Your task to perform on an android device: toggle airplane mode Image 0: 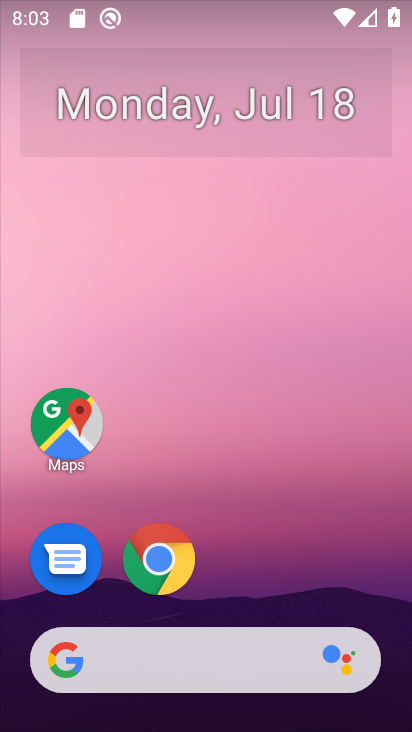
Step 0: drag from (374, 574) to (400, 104)
Your task to perform on an android device: toggle airplane mode Image 1: 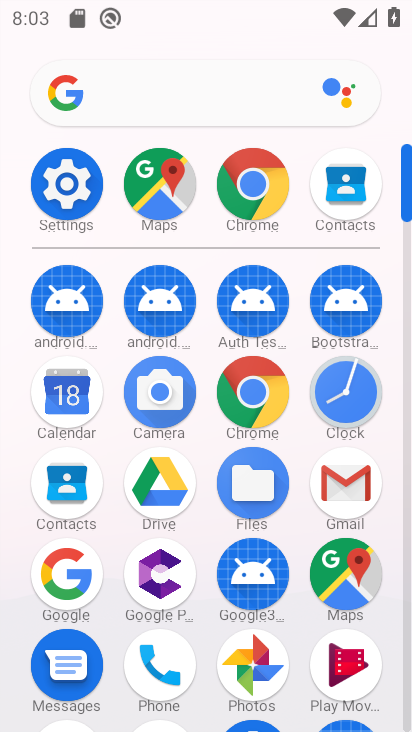
Step 1: click (66, 197)
Your task to perform on an android device: toggle airplane mode Image 2: 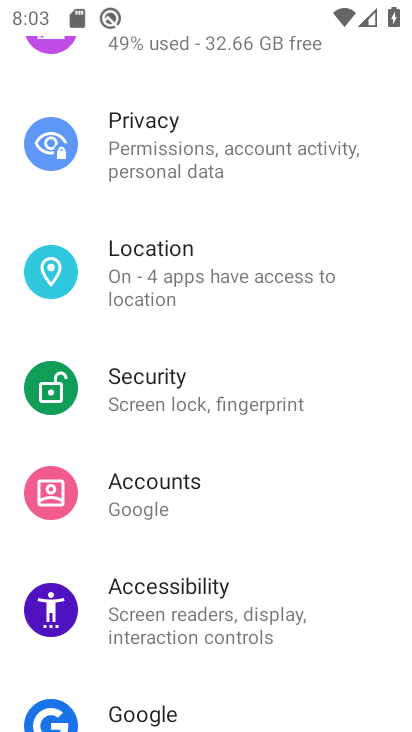
Step 2: drag from (347, 388) to (349, 440)
Your task to perform on an android device: toggle airplane mode Image 3: 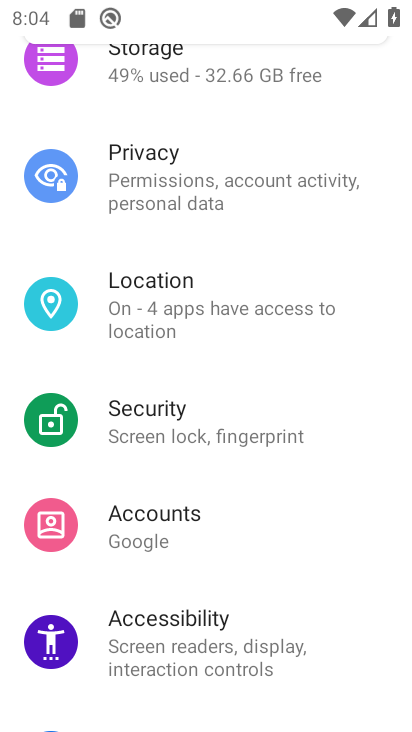
Step 3: drag from (355, 367) to (352, 429)
Your task to perform on an android device: toggle airplane mode Image 4: 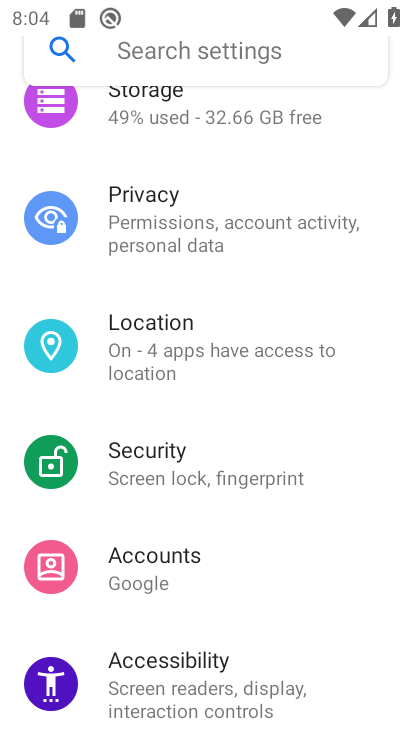
Step 4: drag from (368, 316) to (376, 389)
Your task to perform on an android device: toggle airplane mode Image 5: 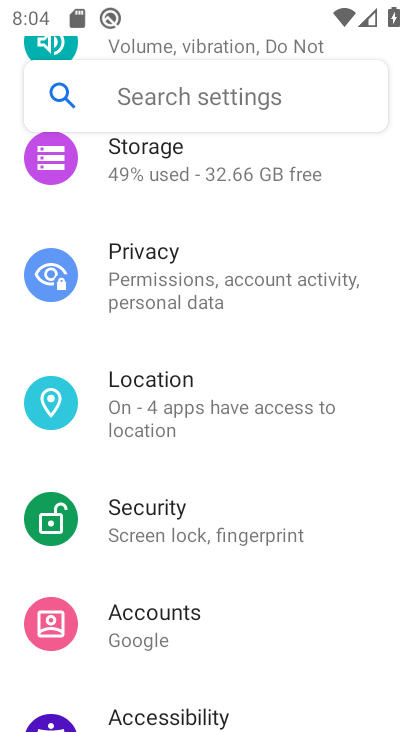
Step 5: drag from (381, 320) to (380, 400)
Your task to perform on an android device: toggle airplane mode Image 6: 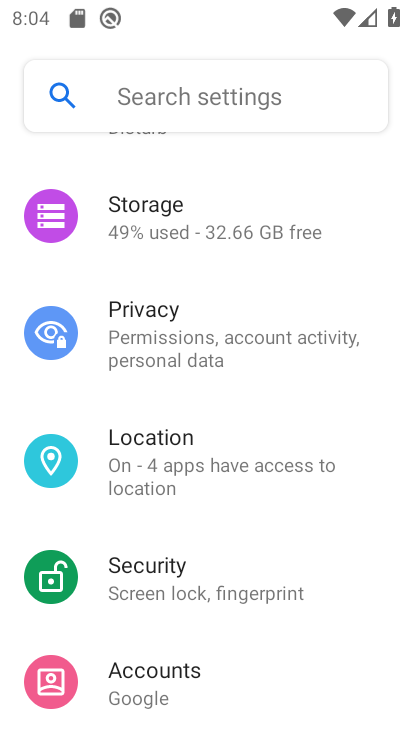
Step 6: drag from (383, 296) to (384, 385)
Your task to perform on an android device: toggle airplane mode Image 7: 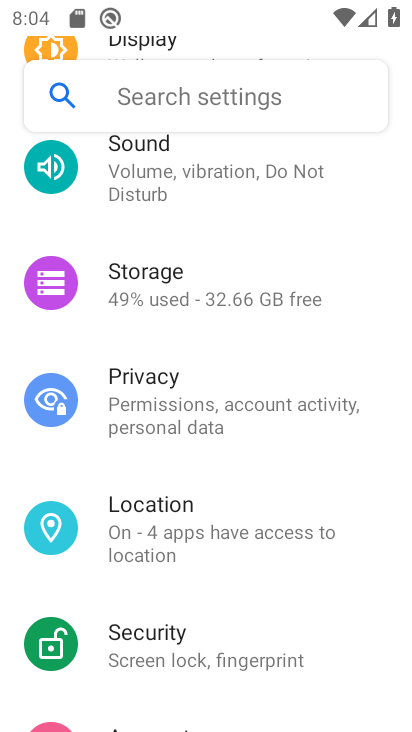
Step 7: drag from (389, 301) to (390, 376)
Your task to perform on an android device: toggle airplane mode Image 8: 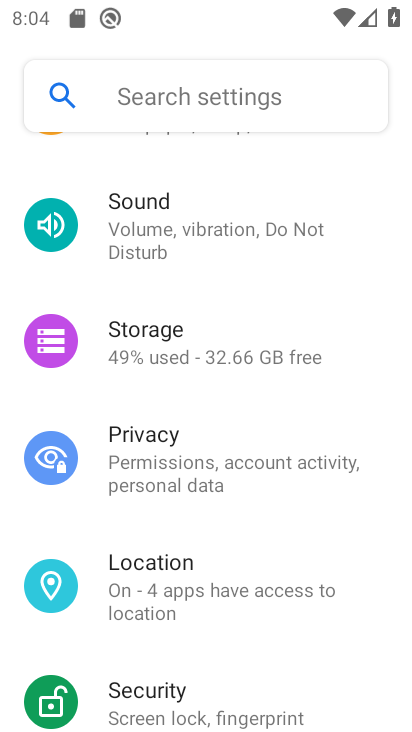
Step 8: drag from (384, 297) to (383, 384)
Your task to perform on an android device: toggle airplane mode Image 9: 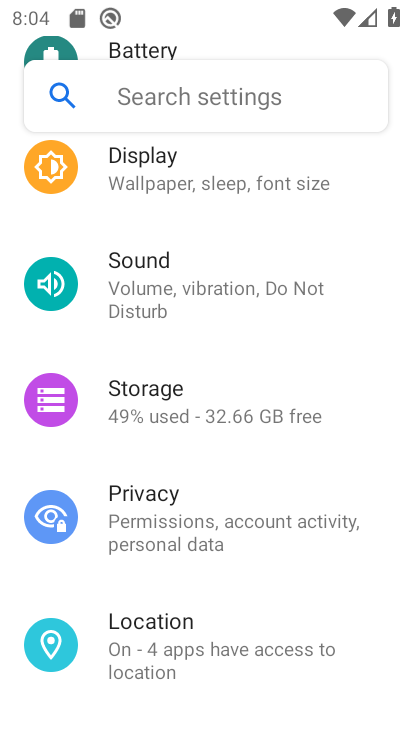
Step 9: drag from (373, 289) to (371, 371)
Your task to perform on an android device: toggle airplane mode Image 10: 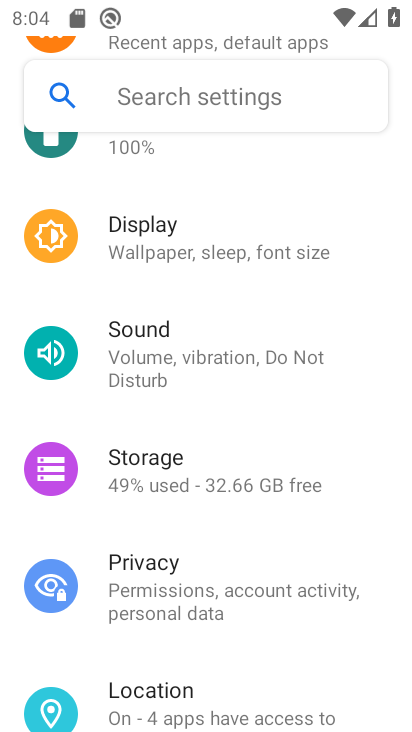
Step 10: drag from (375, 283) to (370, 367)
Your task to perform on an android device: toggle airplane mode Image 11: 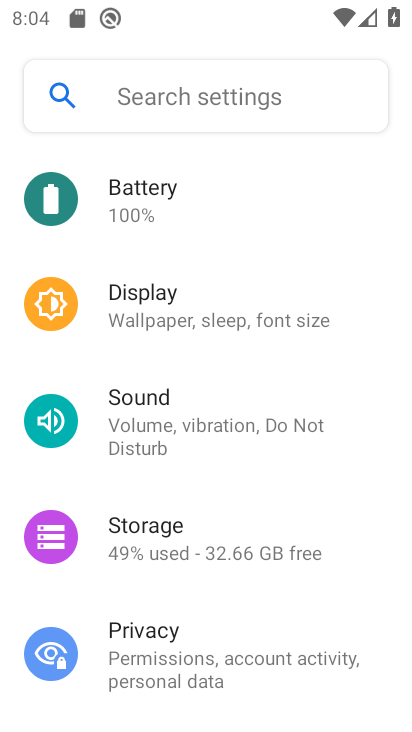
Step 11: drag from (370, 264) to (374, 344)
Your task to perform on an android device: toggle airplane mode Image 12: 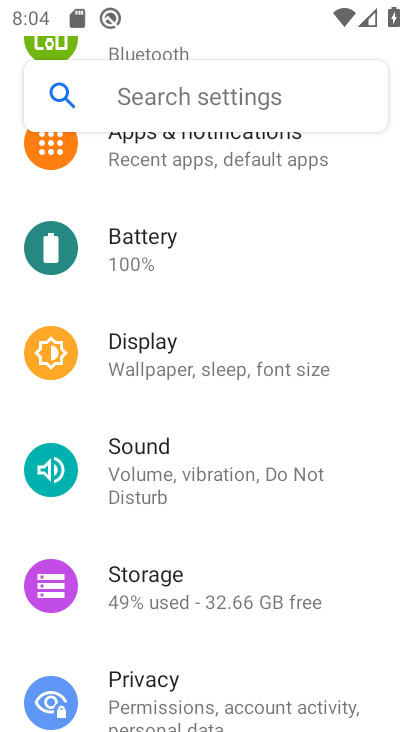
Step 12: drag from (372, 266) to (373, 338)
Your task to perform on an android device: toggle airplane mode Image 13: 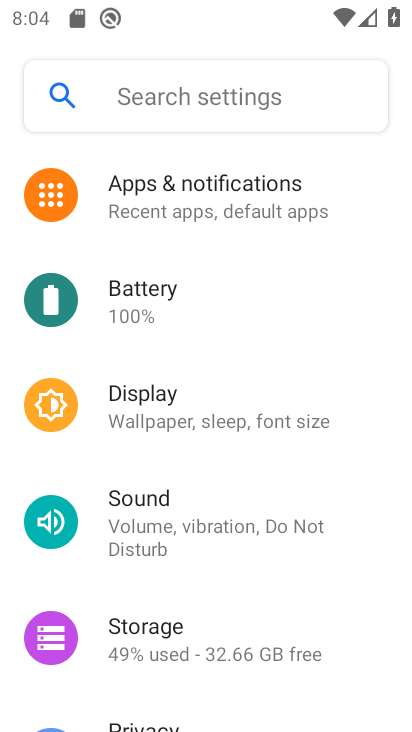
Step 13: drag from (369, 251) to (369, 341)
Your task to perform on an android device: toggle airplane mode Image 14: 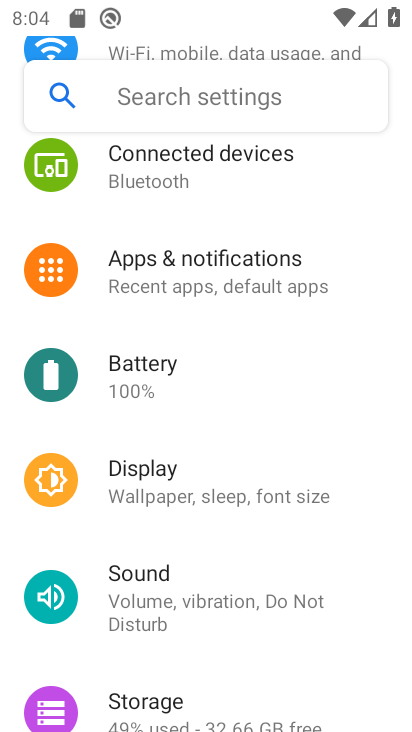
Step 14: drag from (367, 260) to (365, 358)
Your task to perform on an android device: toggle airplane mode Image 15: 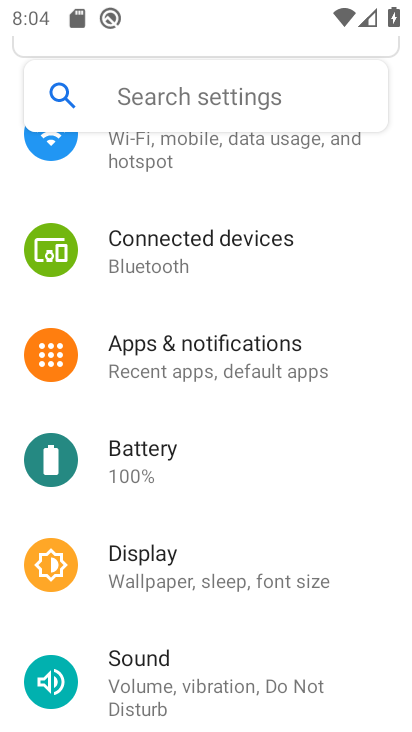
Step 15: drag from (364, 274) to (366, 360)
Your task to perform on an android device: toggle airplane mode Image 16: 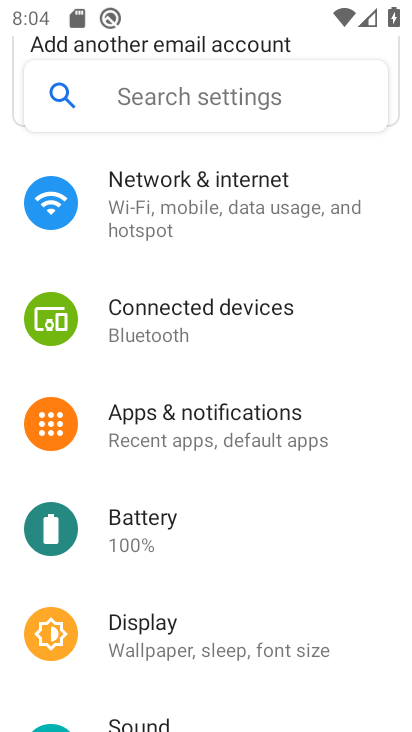
Step 16: drag from (362, 271) to (361, 370)
Your task to perform on an android device: toggle airplane mode Image 17: 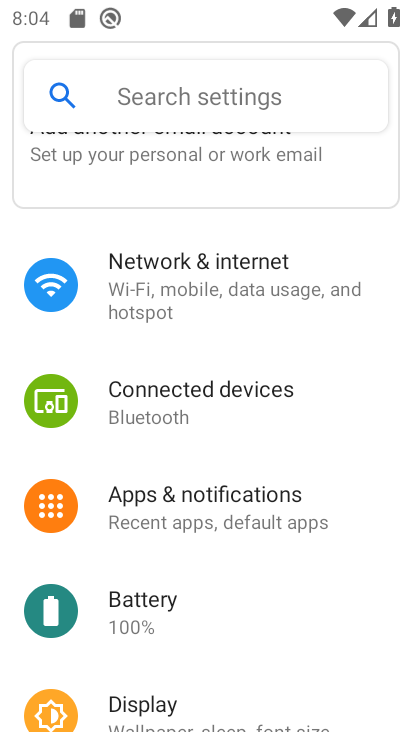
Step 17: click (280, 293)
Your task to perform on an android device: toggle airplane mode Image 18: 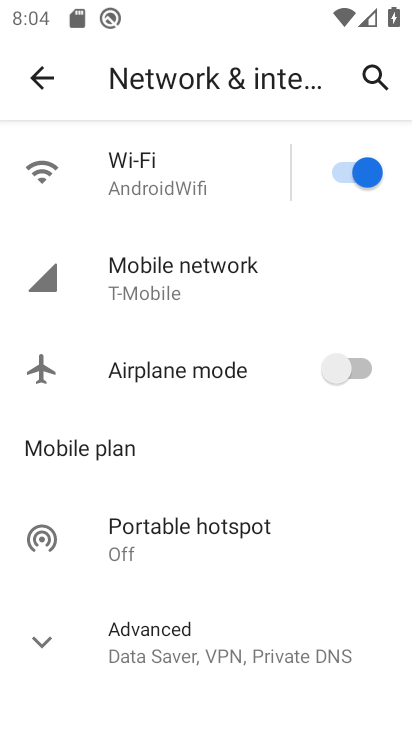
Step 18: click (352, 377)
Your task to perform on an android device: toggle airplane mode Image 19: 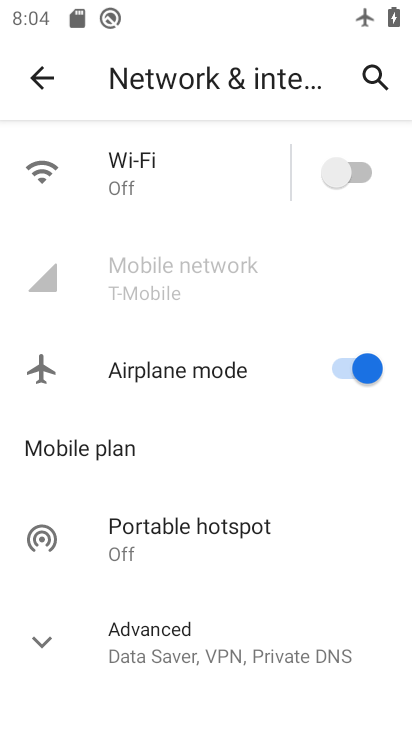
Step 19: task complete